Your task to perform on an android device: turn off notifications settings in the gmail app Image 0: 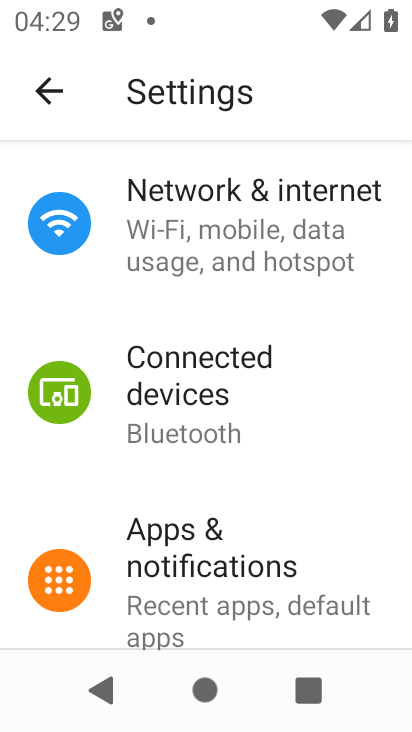
Step 0: press home button
Your task to perform on an android device: turn off notifications settings in the gmail app Image 1: 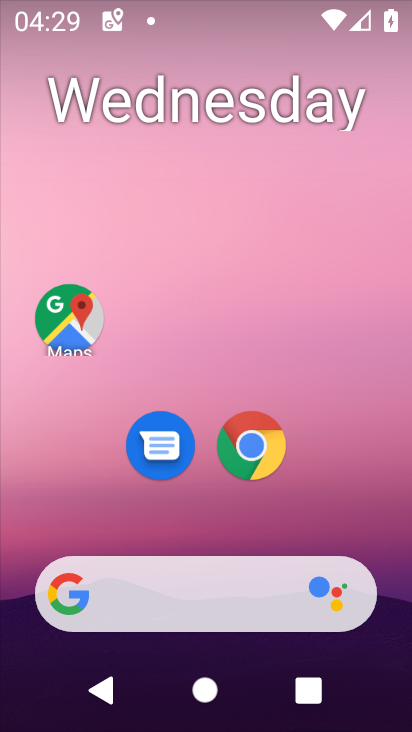
Step 1: drag from (219, 540) to (201, 130)
Your task to perform on an android device: turn off notifications settings in the gmail app Image 2: 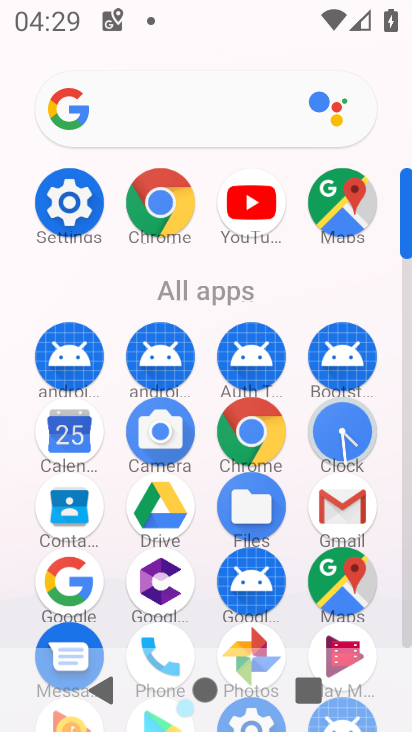
Step 2: click (43, 196)
Your task to perform on an android device: turn off notifications settings in the gmail app Image 3: 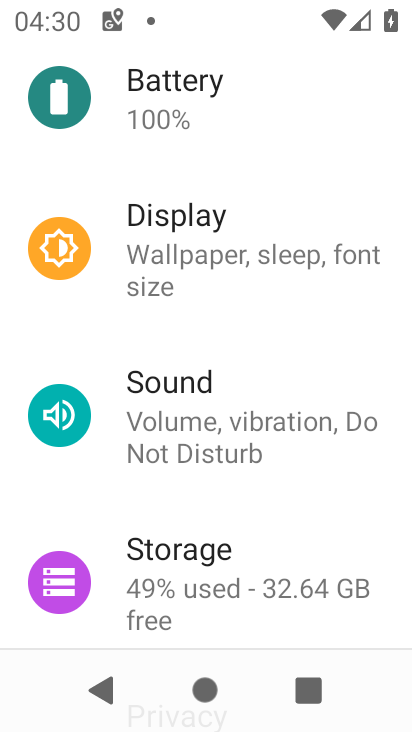
Step 3: drag from (114, 481) to (189, 82)
Your task to perform on an android device: turn off notifications settings in the gmail app Image 4: 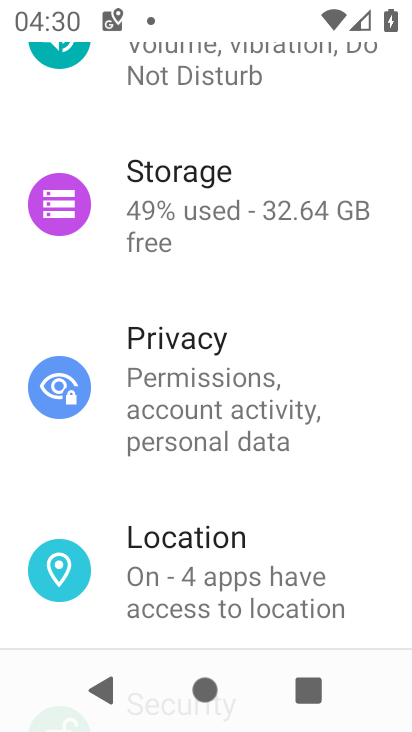
Step 4: drag from (113, 107) to (87, 477)
Your task to perform on an android device: turn off notifications settings in the gmail app Image 5: 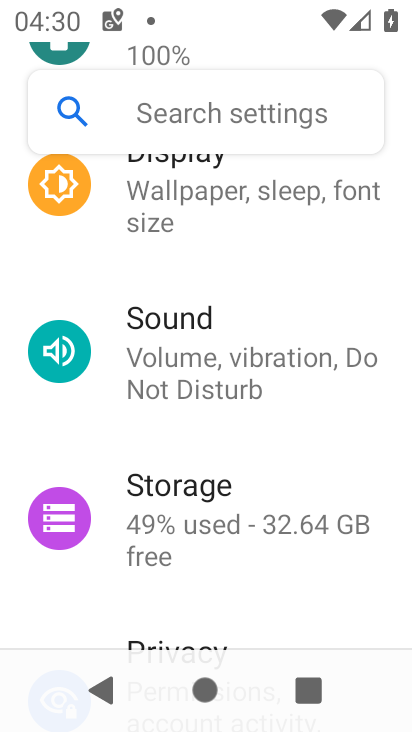
Step 5: drag from (112, 239) to (84, 652)
Your task to perform on an android device: turn off notifications settings in the gmail app Image 6: 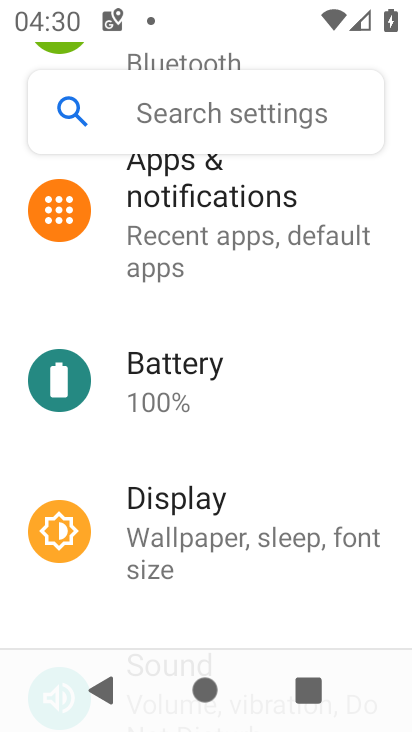
Step 6: click (187, 183)
Your task to perform on an android device: turn off notifications settings in the gmail app Image 7: 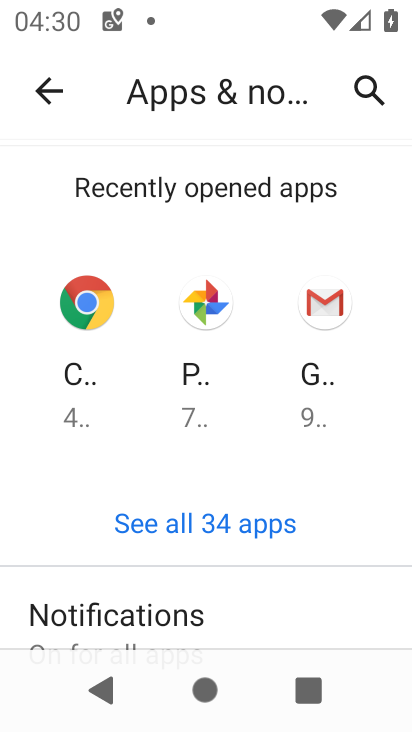
Step 7: click (324, 325)
Your task to perform on an android device: turn off notifications settings in the gmail app Image 8: 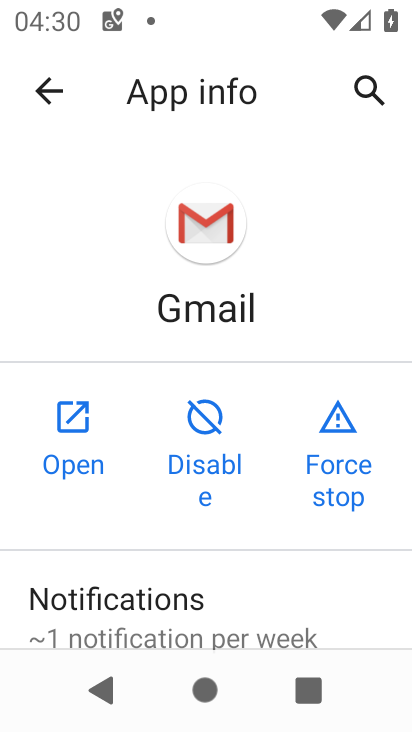
Step 8: click (143, 615)
Your task to perform on an android device: turn off notifications settings in the gmail app Image 9: 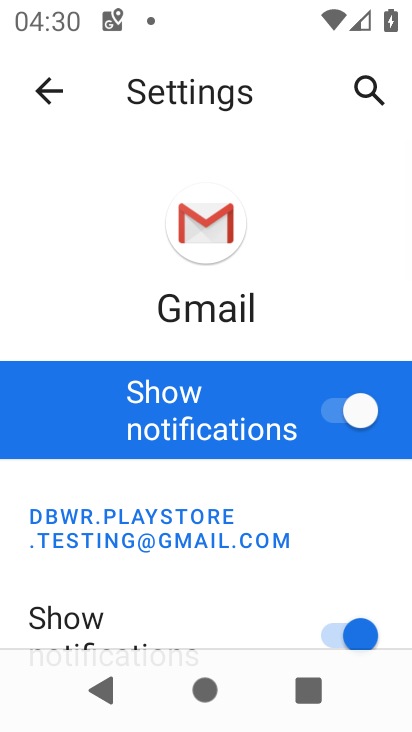
Step 9: click (372, 409)
Your task to perform on an android device: turn off notifications settings in the gmail app Image 10: 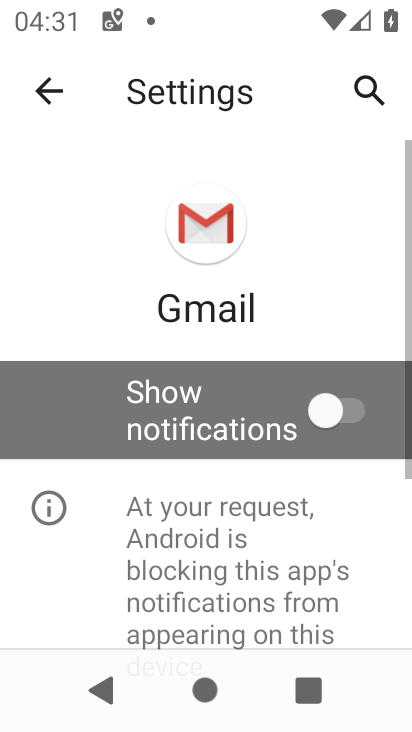
Step 10: click (372, 409)
Your task to perform on an android device: turn off notifications settings in the gmail app Image 11: 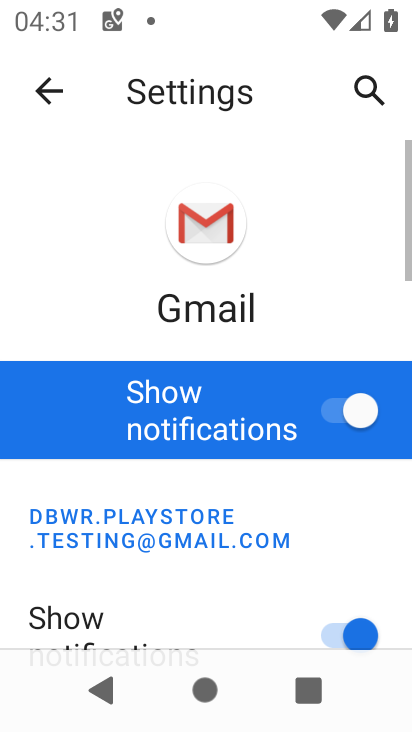
Step 11: click (372, 409)
Your task to perform on an android device: turn off notifications settings in the gmail app Image 12: 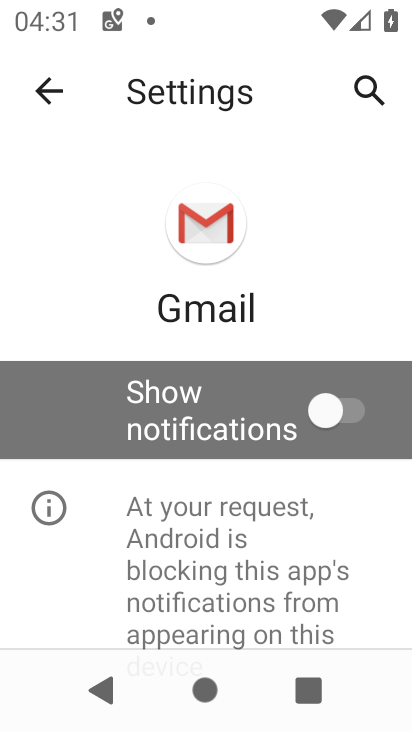
Step 12: task complete